Your task to perform on an android device: Play the last video I watched on Youtube Image 0: 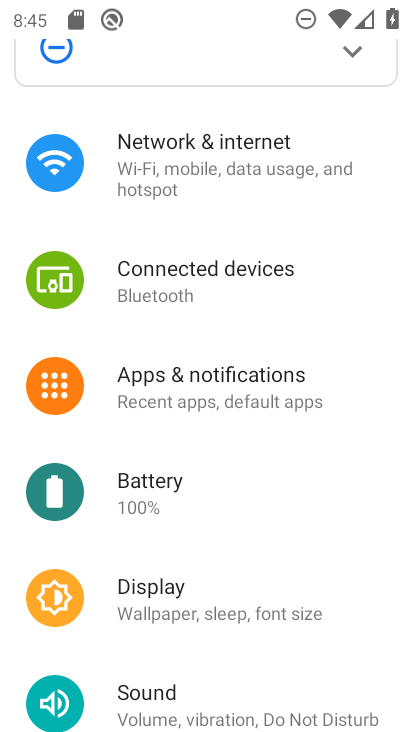
Step 0: press home button
Your task to perform on an android device: Play the last video I watched on Youtube Image 1: 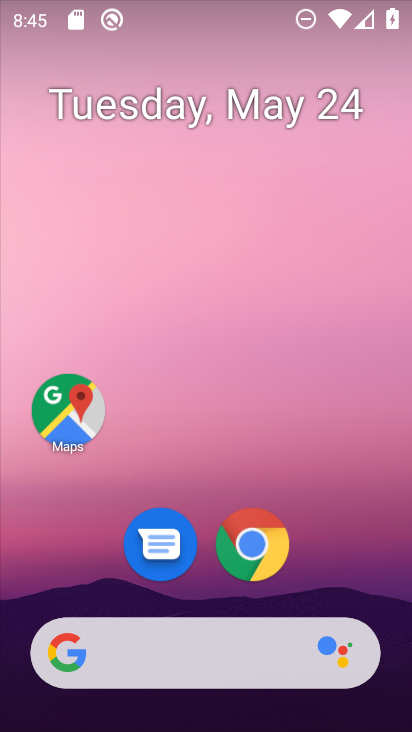
Step 1: click (266, 7)
Your task to perform on an android device: Play the last video I watched on Youtube Image 2: 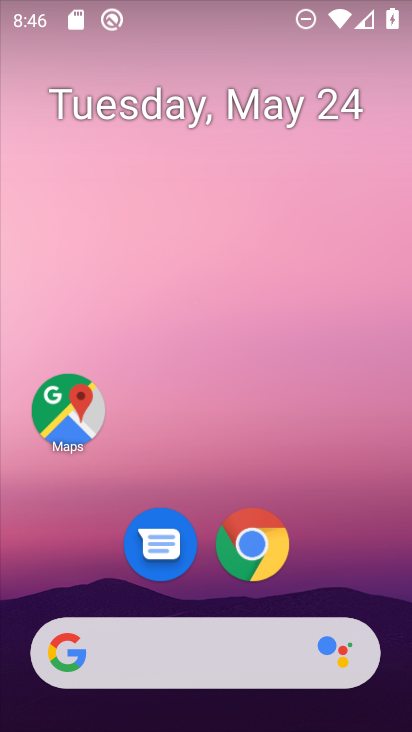
Step 2: drag from (351, 579) to (283, 183)
Your task to perform on an android device: Play the last video I watched on Youtube Image 3: 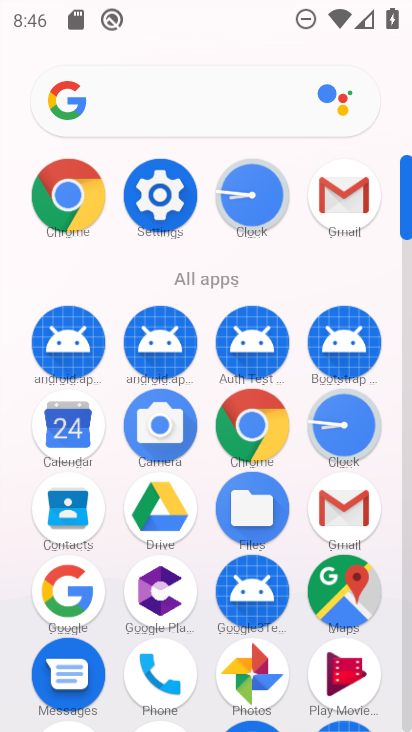
Step 3: click (409, 719)
Your task to perform on an android device: Play the last video I watched on Youtube Image 4: 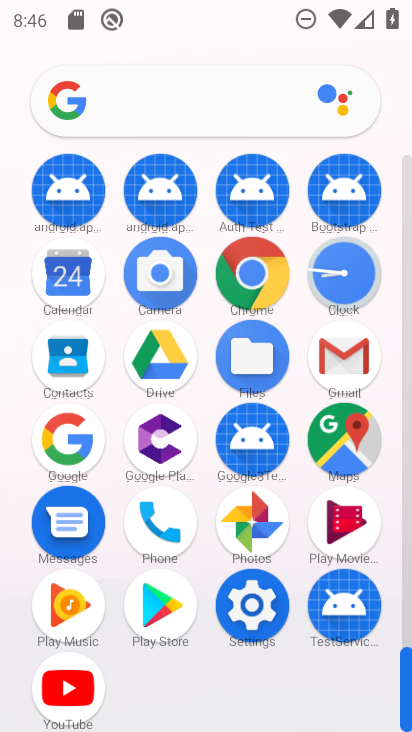
Step 4: click (86, 680)
Your task to perform on an android device: Play the last video I watched on Youtube Image 5: 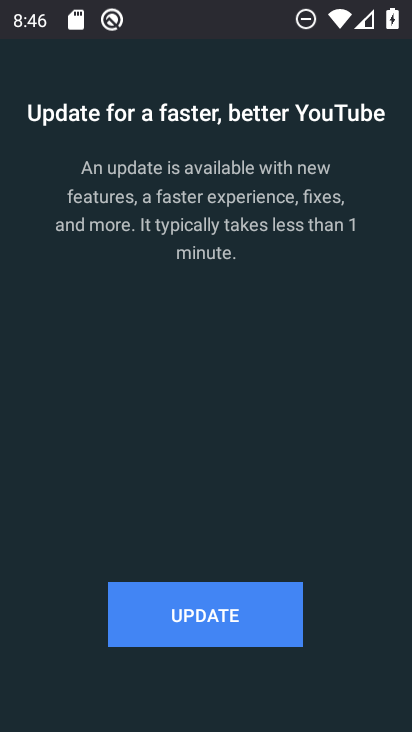
Step 5: click (204, 617)
Your task to perform on an android device: Play the last video I watched on Youtube Image 6: 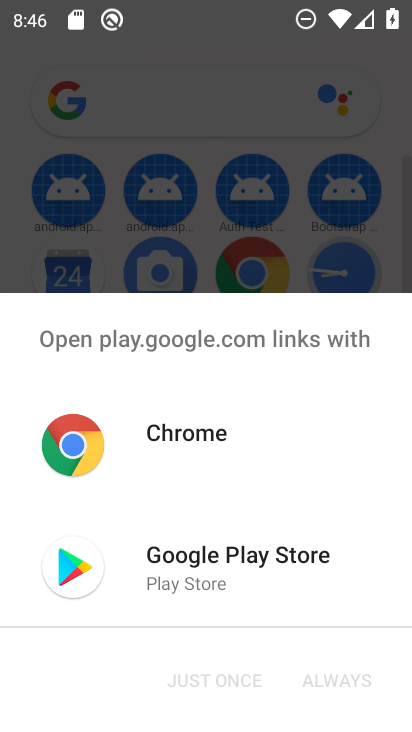
Step 6: click (245, 583)
Your task to perform on an android device: Play the last video I watched on Youtube Image 7: 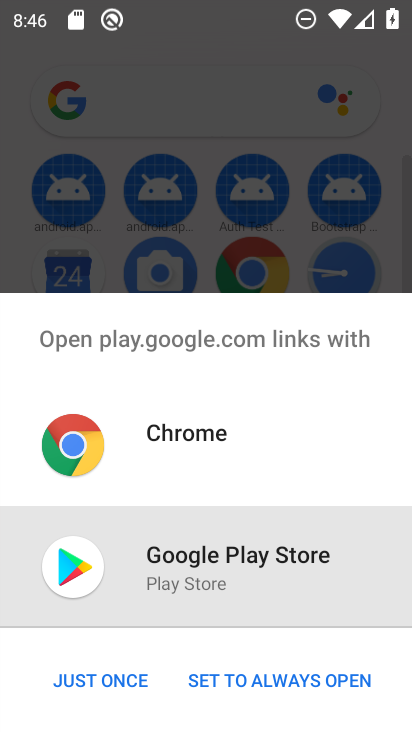
Step 7: click (106, 669)
Your task to perform on an android device: Play the last video I watched on Youtube Image 8: 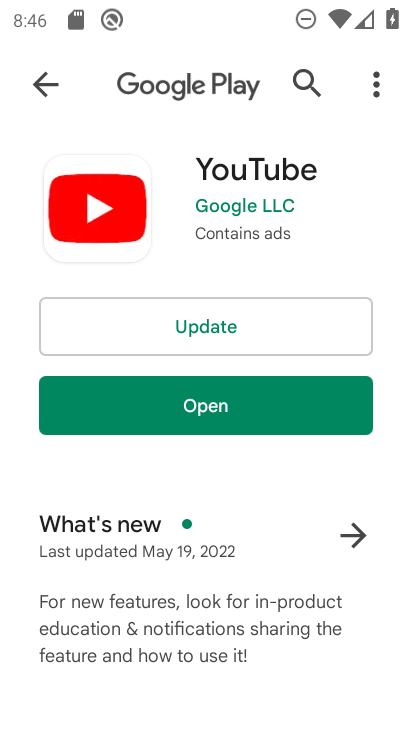
Step 8: click (259, 314)
Your task to perform on an android device: Play the last video I watched on Youtube Image 9: 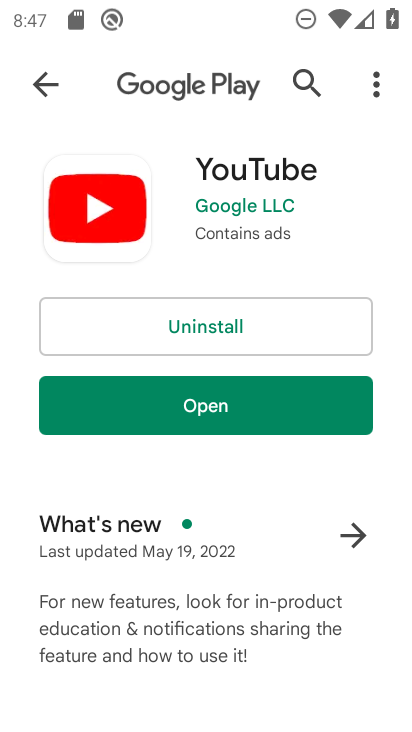
Step 9: click (130, 413)
Your task to perform on an android device: Play the last video I watched on Youtube Image 10: 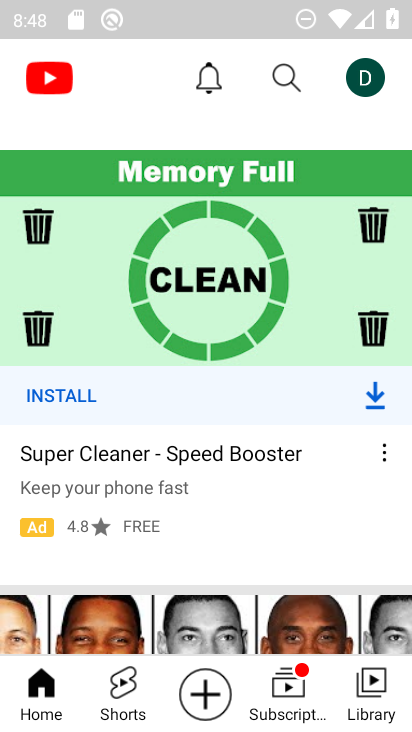
Step 10: click (376, 691)
Your task to perform on an android device: Play the last video I watched on Youtube Image 11: 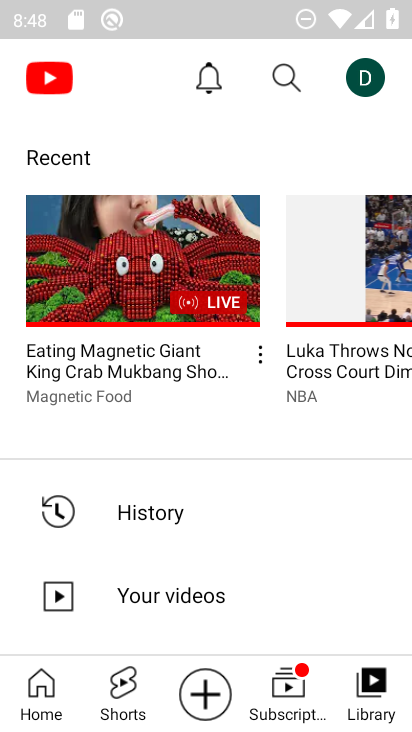
Step 11: click (200, 262)
Your task to perform on an android device: Play the last video I watched on Youtube Image 12: 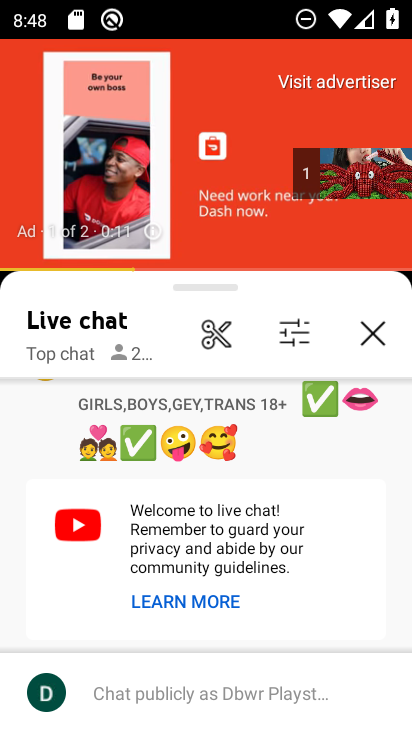
Step 12: task complete